Your task to perform on an android device: Do I have any events tomorrow? Image 0: 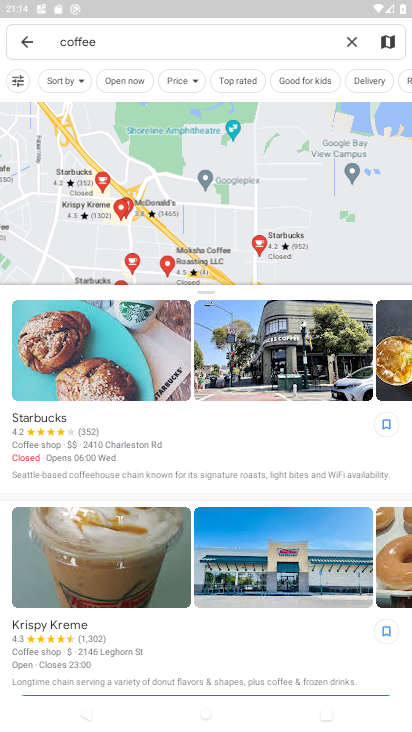
Step 0: press back button
Your task to perform on an android device: Do I have any events tomorrow? Image 1: 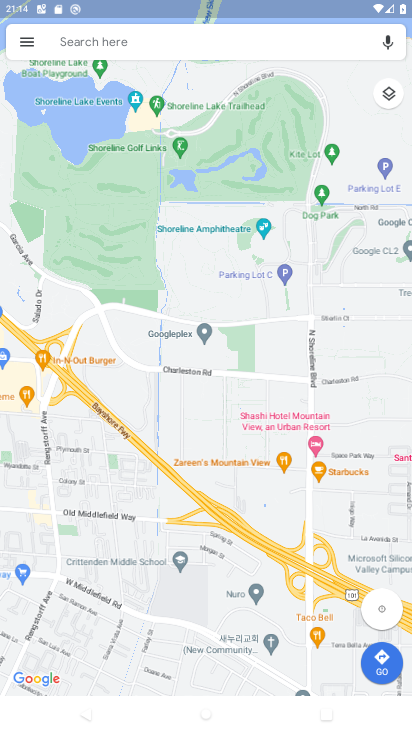
Step 1: press back button
Your task to perform on an android device: Do I have any events tomorrow? Image 2: 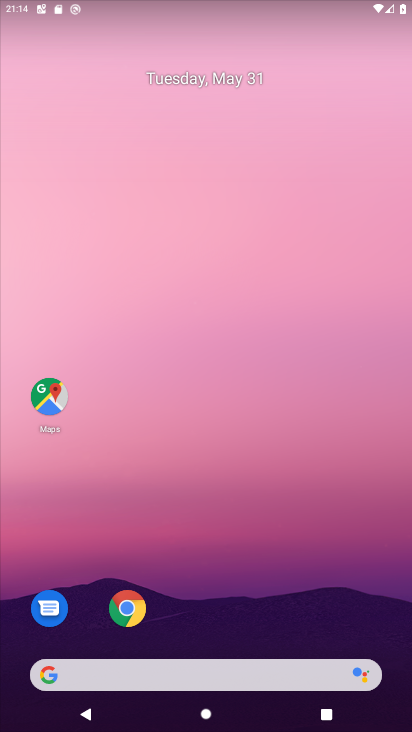
Step 2: drag from (257, 605) to (239, 84)
Your task to perform on an android device: Do I have any events tomorrow? Image 3: 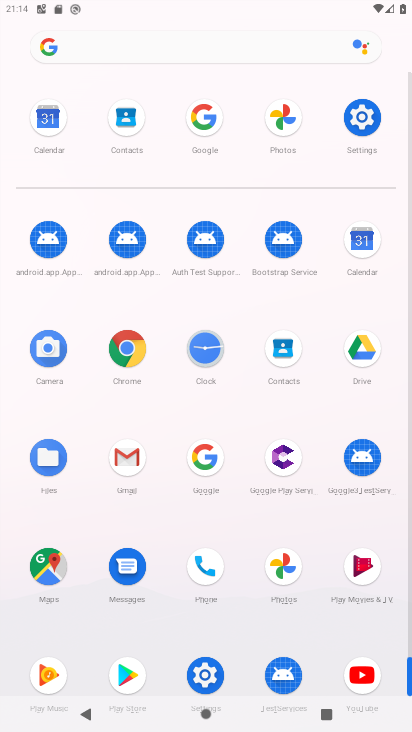
Step 3: click (49, 119)
Your task to perform on an android device: Do I have any events tomorrow? Image 4: 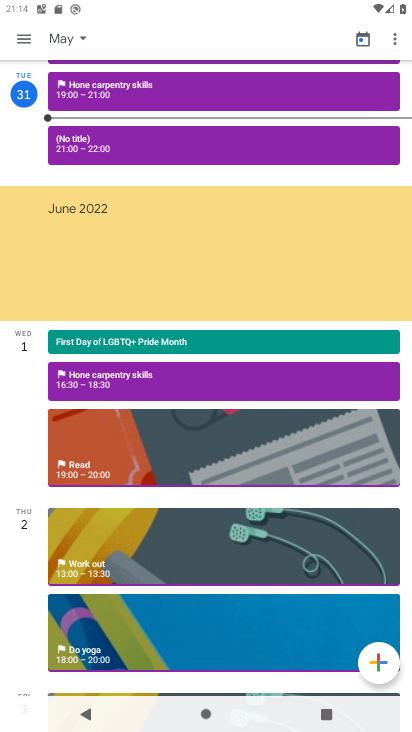
Step 4: click (83, 38)
Your task to perform on an android device: Do I have any events tomorrow? Image 5: 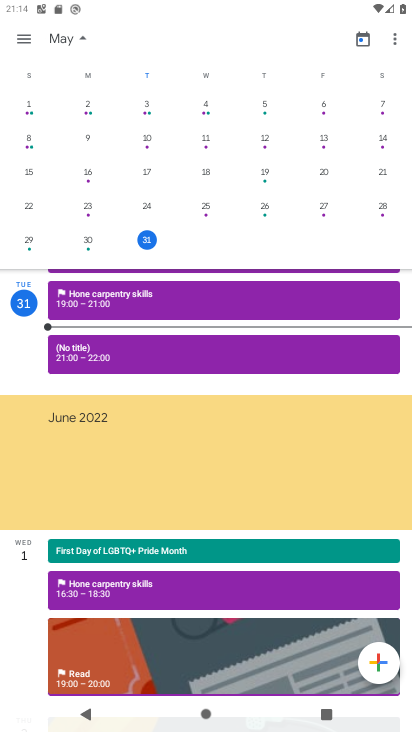
Step 5: drag from (364, 186) to (11, 202)
Your task to perform on an android device: Do I have any events tomorrow? Image 6: 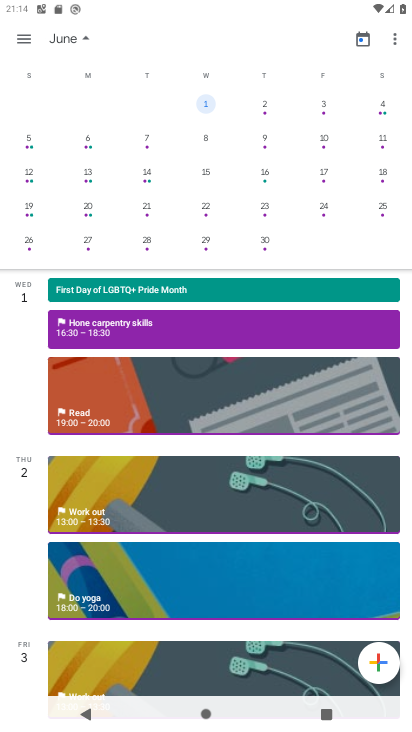
Step 6: click (198, 107)
Your task to perform on an android device: Do I have any events tomorrow? Image 7: 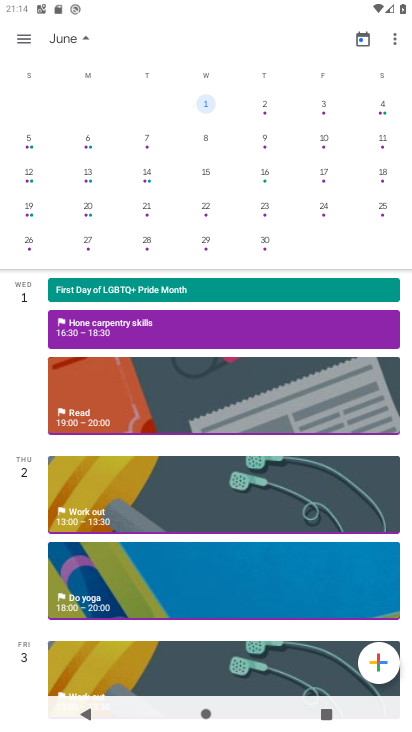
Step 7: click (131, 325)
Your task to perform on an android device: Do I have any events tomorrow? Image 8: 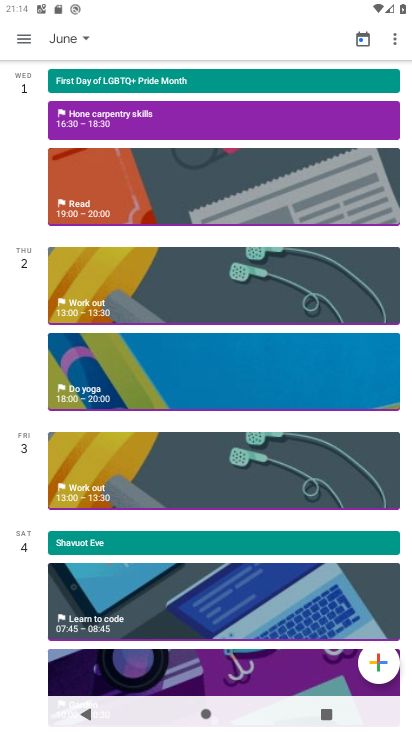
Step 8: click (188, 112)
Your task to perform on an android device: Do I have any events tomorrow? Image 9: 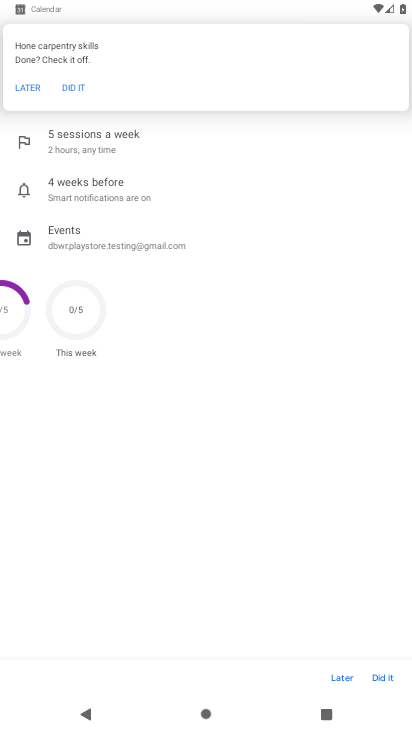
Step 9: task complete